Your task to perform on an android device: Open Youtube and go to "Your channel" Image 0: 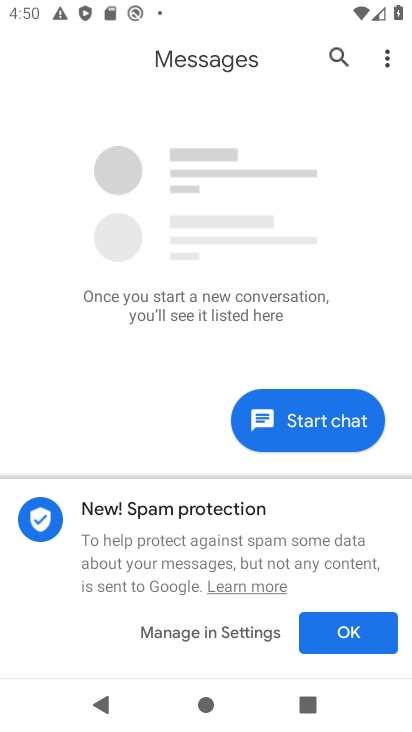
Step 0: press back button
Your task to perform on an android device: Open Youtube and go to "Your channel" Image 1: 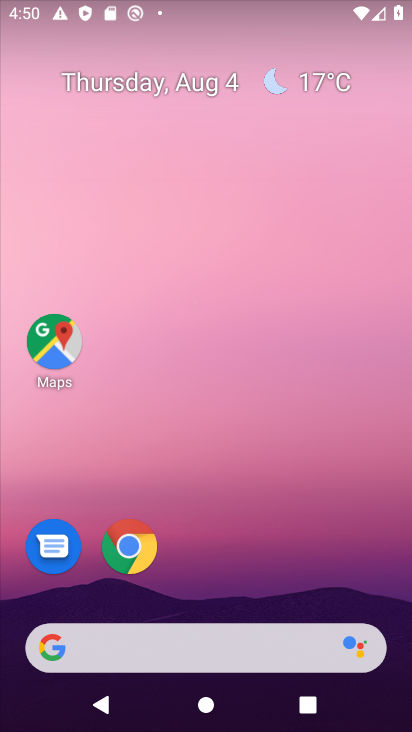
Step 1: drag from (200, 585) to (208, 166)
Your task to perform on an android device: Open Youtube and go to "Your channel" Image 2: 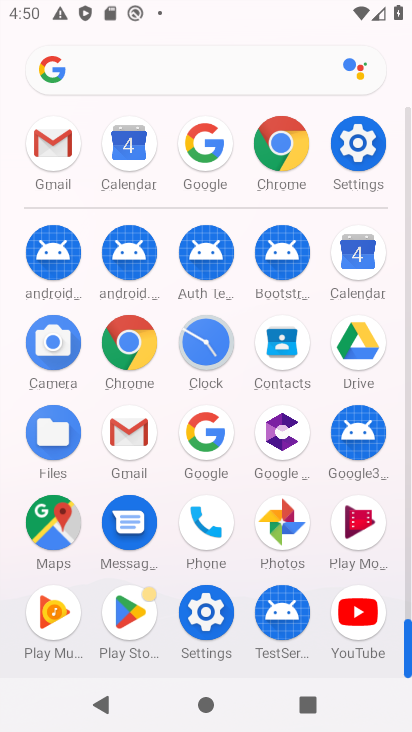
Step 2: click (344, 614)
Your task to perform on an android device: Open Youtube and go to "Your channel" Image 3: 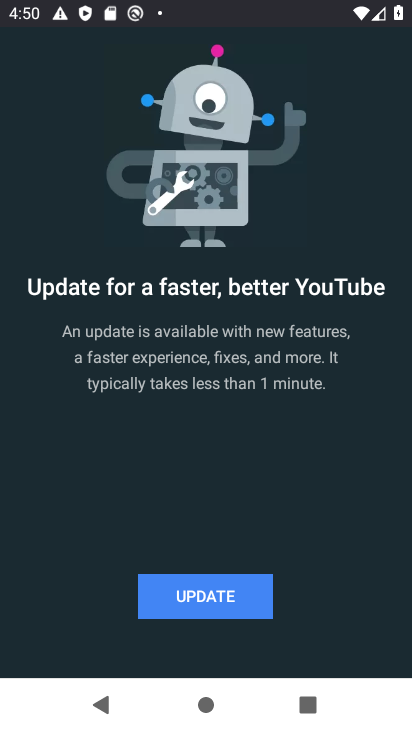
Step 3: click (221, 597)
Your task to perform on an android device: Open Youtube and go to "Your channel" Image 4: 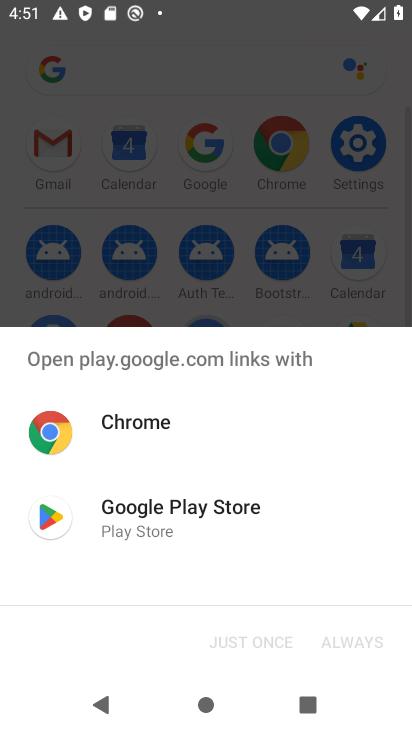
Step 4: click (184, 517)
Your task to perform on an android device: Open Youtube and go to "Your channel" Image 5: 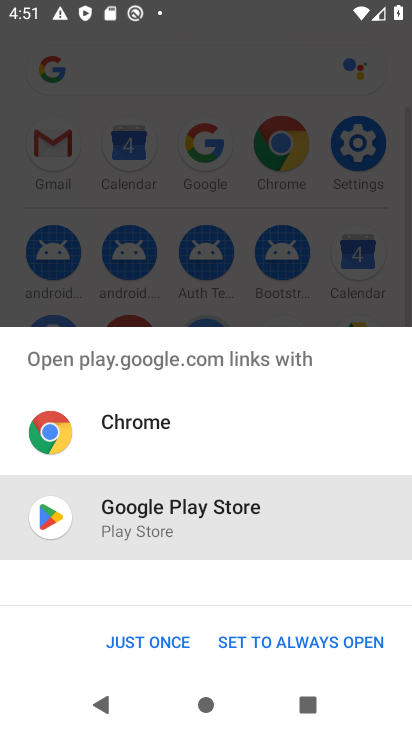
Step 5: click (219, 641)
Your task to perform on an android device: Open Youtube and go to "Your channel" Image 6: 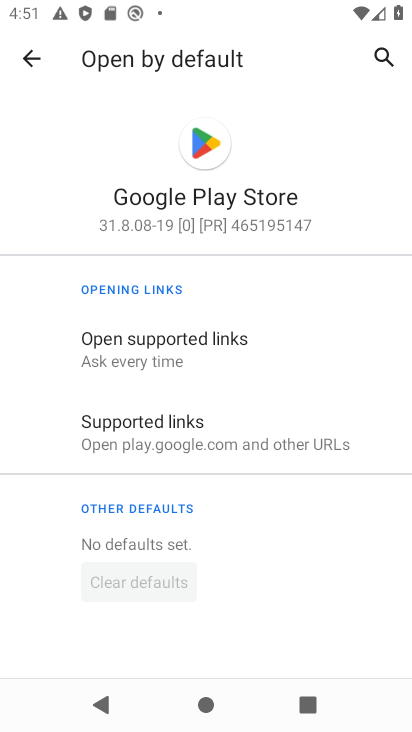
Step 6: click (199, 341)
Your task to perform on an android device: Open Youtube and go to "Your channel" Image 7: 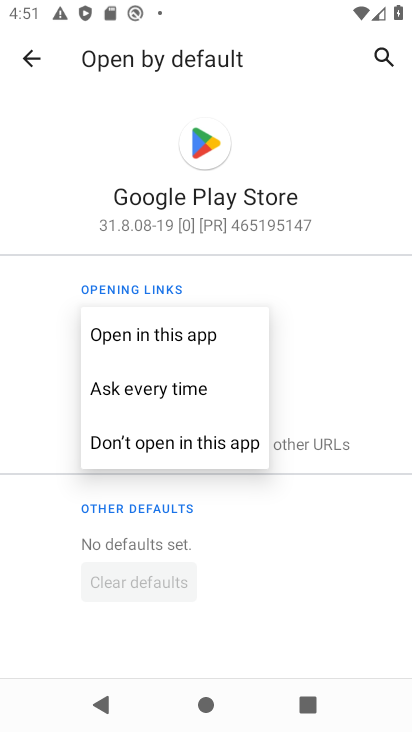
Step 7: click (178, 338)
Your task to perform on an android device: Open Youtube and go to "Your channel" Image 8: 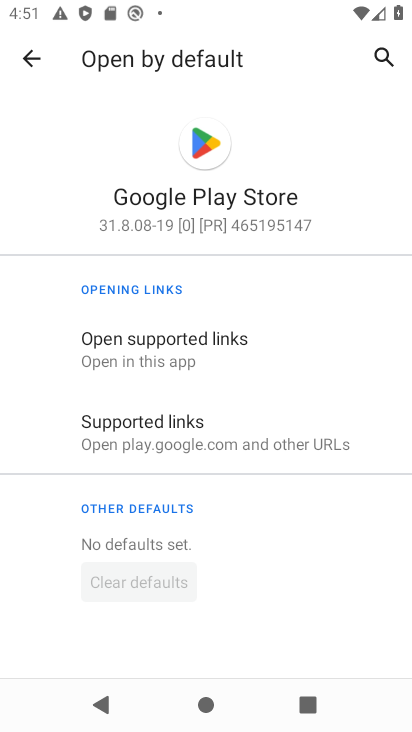
Step 8: click (21, 57)
Your task to perform on an android device: Open Youtube and go to "Your channel" Image 9: 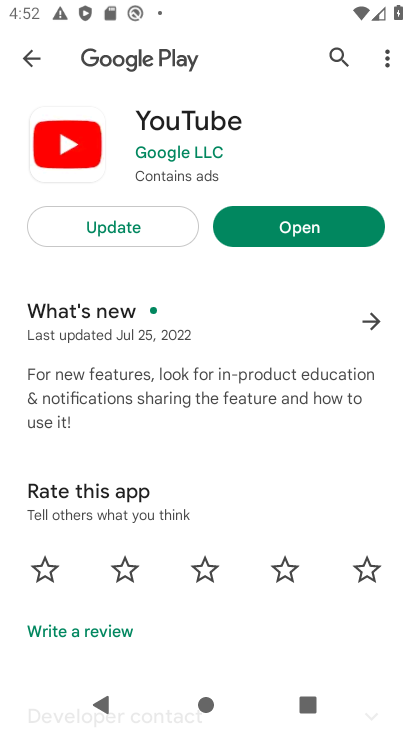
Step 9: click (112, 213)
Your task to perform on an android device: Open Youtube and go to "Your channel" Image 10: 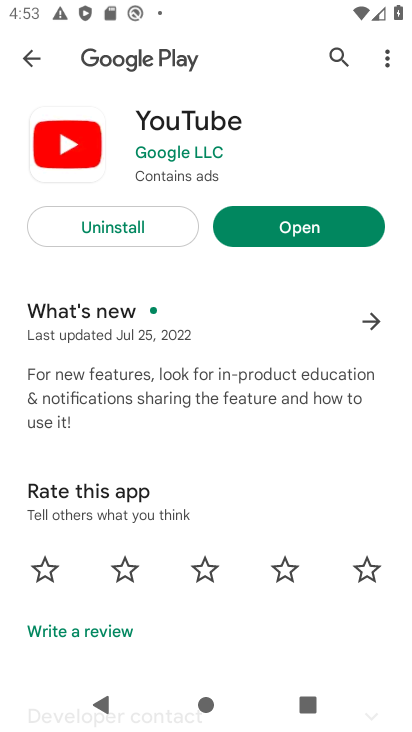
Step 10: click (313, 220)
Your task to perform on an android device: Open Youtube and go to "Your channel" Image 11: 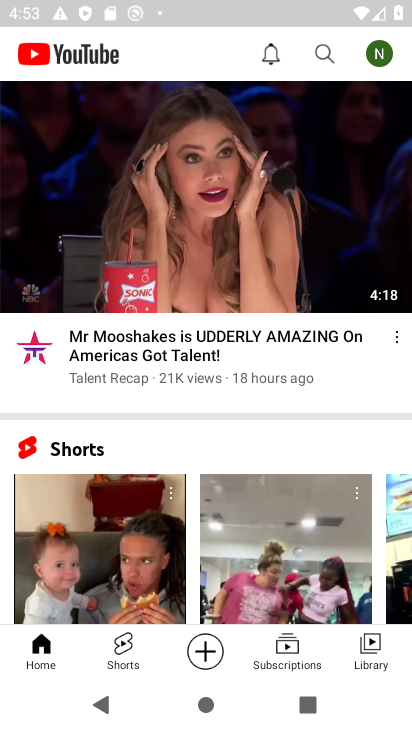
Step 11: click (382, 61)
Your task to perform on an android device: Open Youtube and go to "Your channel" Image 12: 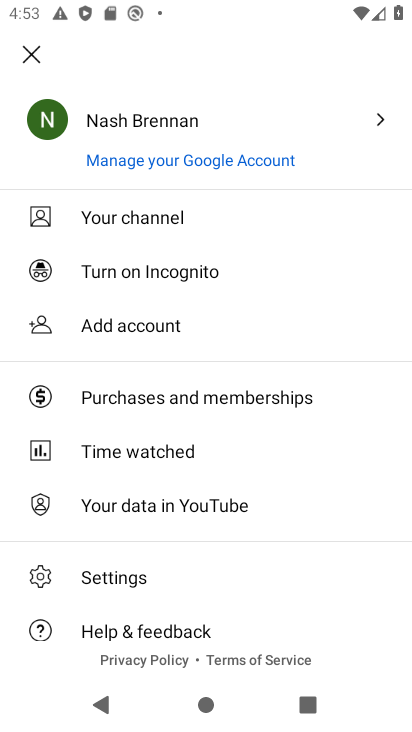
Step 12: click (160, 226)
Your task to perform on an android device: Open Youtube and go to "Your channel" Image 13: 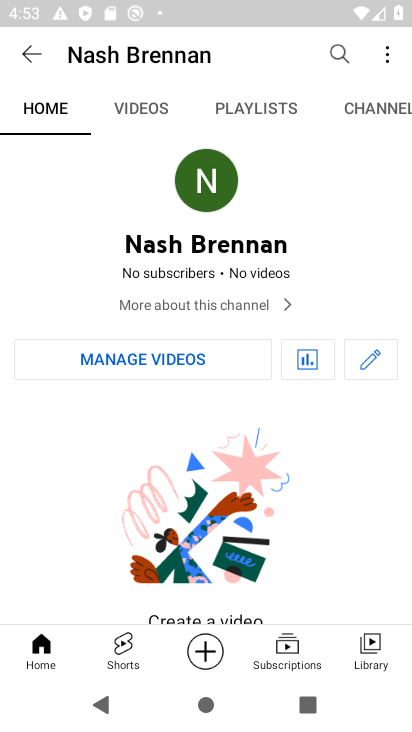
Step 13: task complete